Your task to perform on an android device: What's the weather today? Image 0: 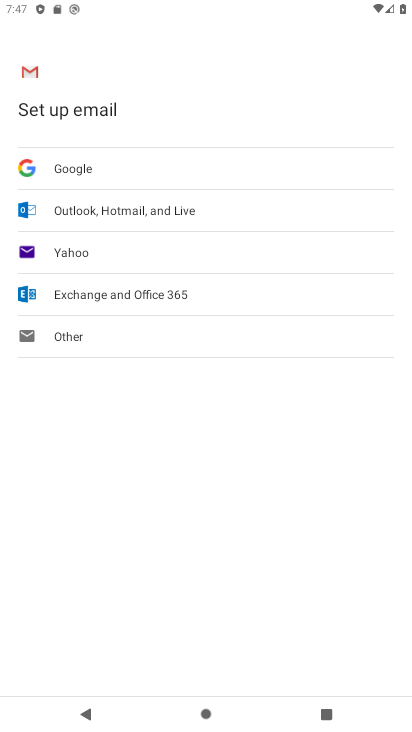
Step 0: press back button
Your task to perform on an android device: What's the weather today? Image 1: 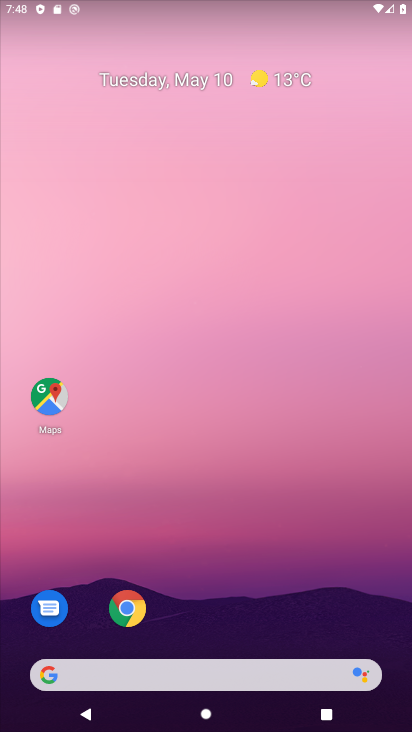
Step 1: drag from (242, 601) to (201, 24)
Your task to perform on an android device: What's the weather today? Image 2: 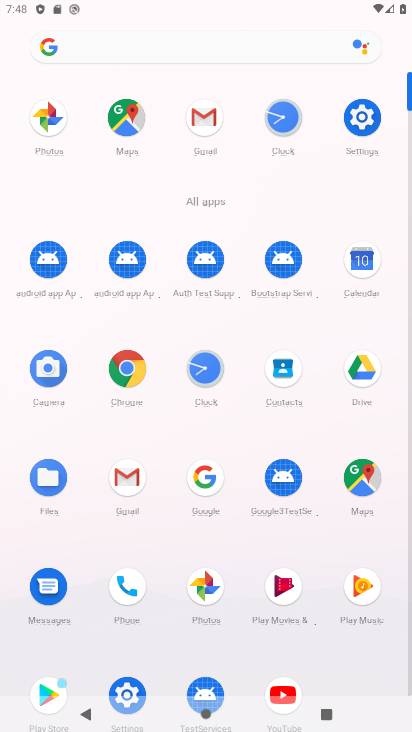
Step 2: click (201, 476)
Your task to perform on an android device: What's the weather today? Image 3: 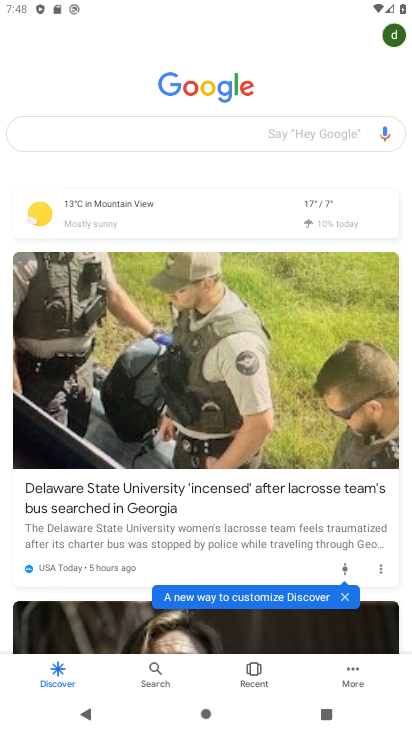
Step 3: click (265, 131)
Your task to perform on an android device: What's the weather today? Image 4: 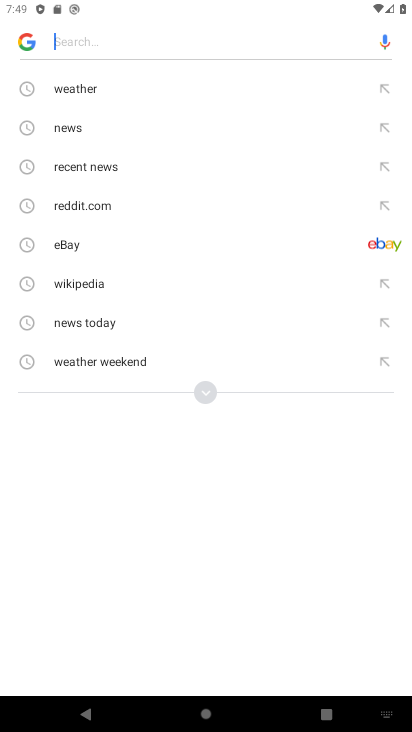
Step 4: click (94, 94)
Your task to perform on an android device: What's the weather today? Image 5: 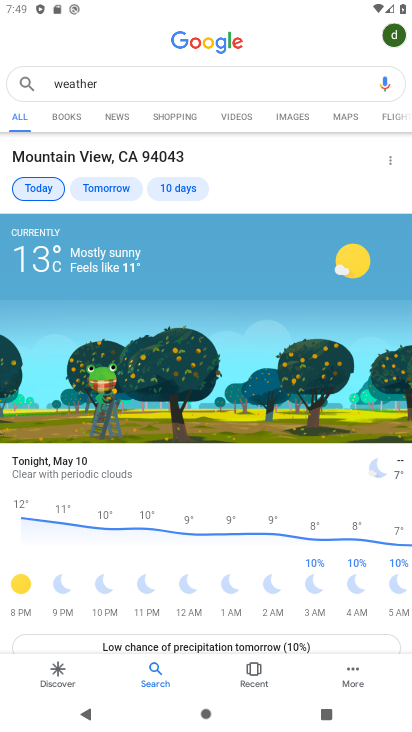
Step 5: task complete